Your task to perform on an android device: open chrome and create a bookmark for the current page Image 0: 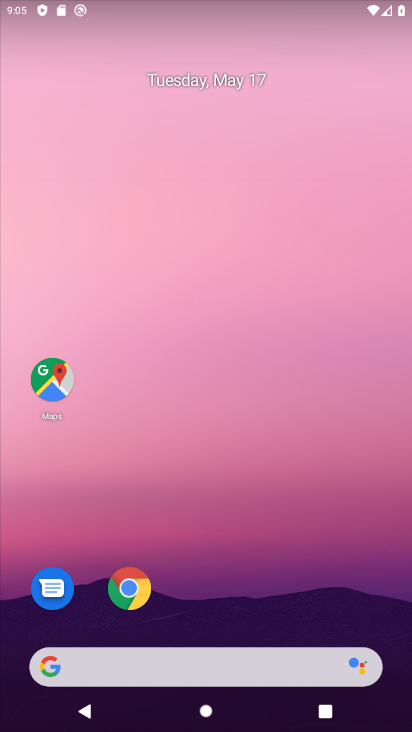
Step 0: drag from (241, 605) to (216, 210)
Your task to perform on an android device: open chrome and create a bookmark for the current page Image 1: 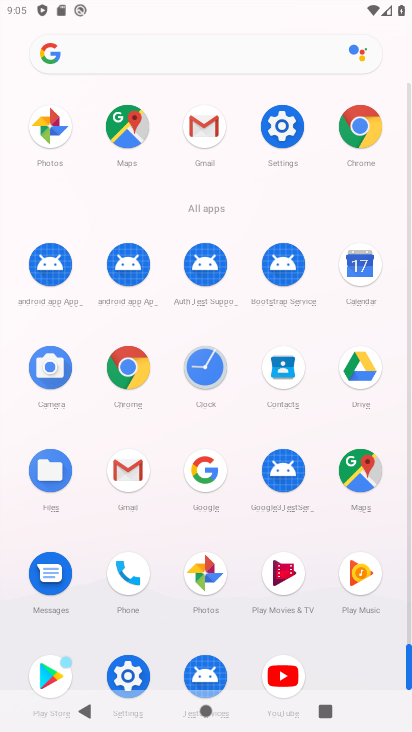
Step 1: click (359, 121)
Your task to perform on an android device: open chrome and create a bookmark for the current page Image 2: 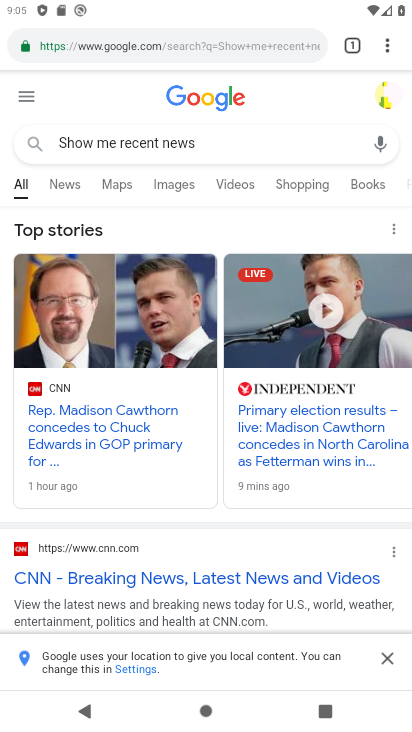
Step 2: click (382, 47)
Your task to perform on an android device: open chrome and create a bookmark for the current page Image 3: 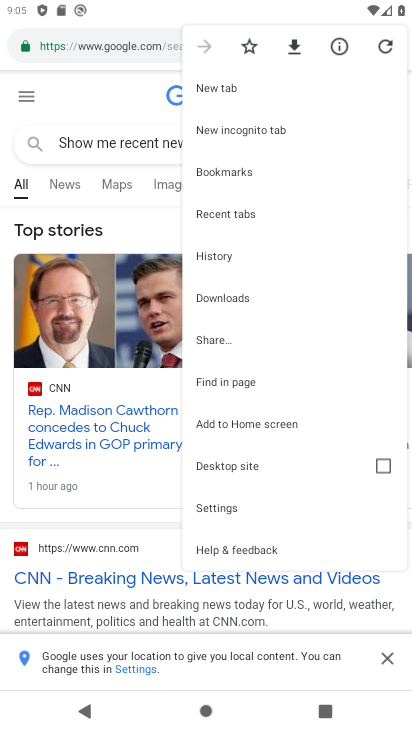
Step 3: click (245, 176)
Your task to perform on an android device: open chrome and create a bookmark for the current page Image 4: 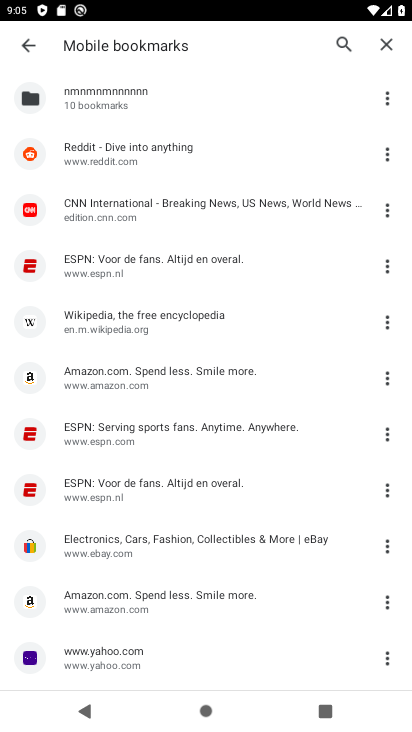
Step 4: click (382, 59)
Your task to perform on an android device: open chrome and create a bookmark for the current page Image 5: 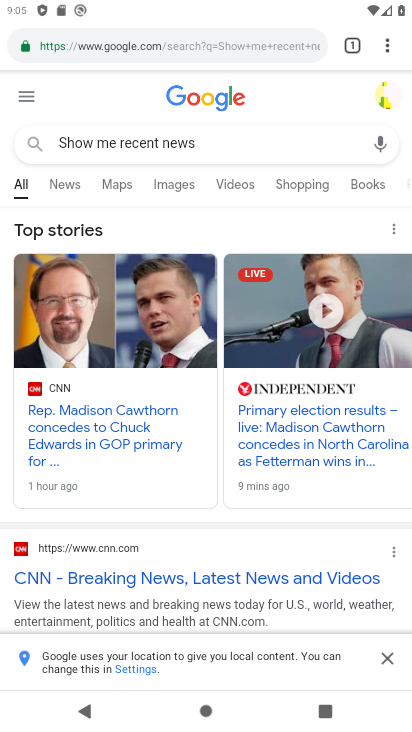
Step 5: click (368, 45)
Your task to perform on an android device: open chrome and create a bookmark for the current page Image 6: 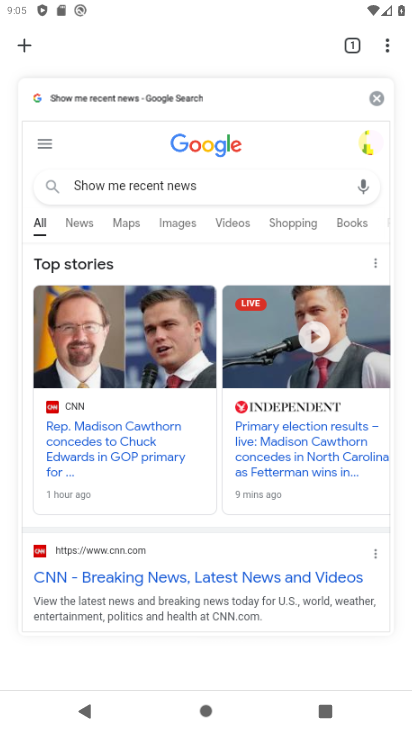
Step 6: click (241, 139)
Your task to perform on an android device: open chrome and create a bookmark for the current page Image 7: 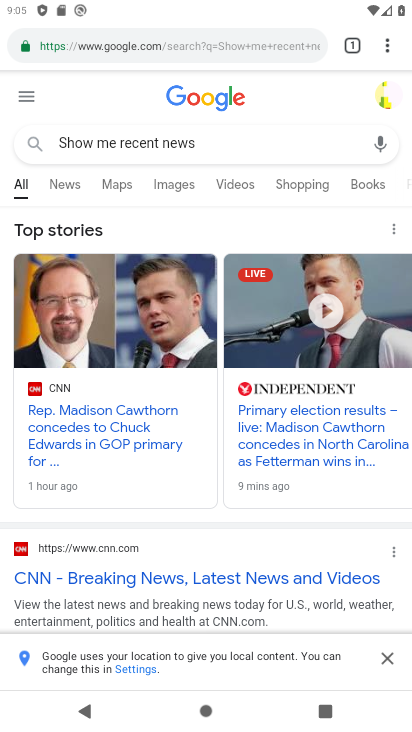
Step 7: click (381, 42)
Your task to perform on an android device: open chrome and create a bookmark for the current page Image 8: 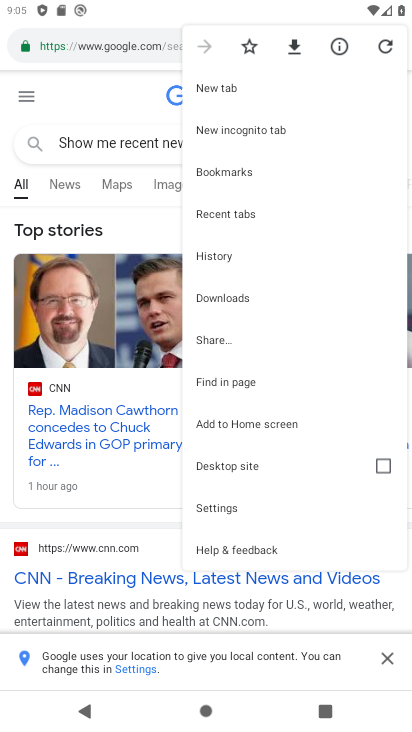
Step 8: click (233, 32)
Your task to perform on an android device: open chrome and create a bookmark for the current page Image 9: 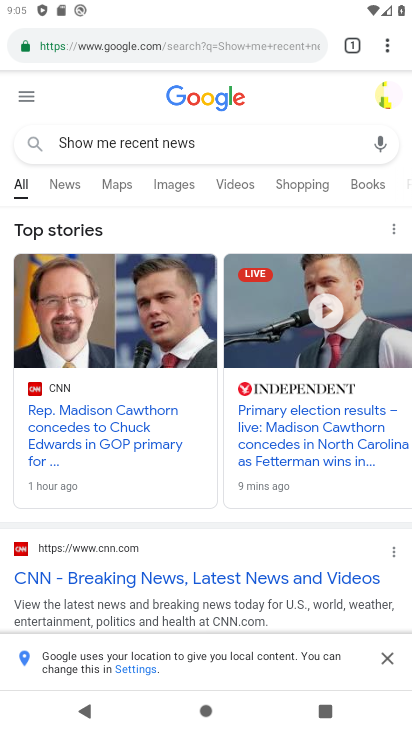
Step 9: click (255, 51)
Your task to perform on an android device: open chrome and create a bookmark for the current page Image 10: 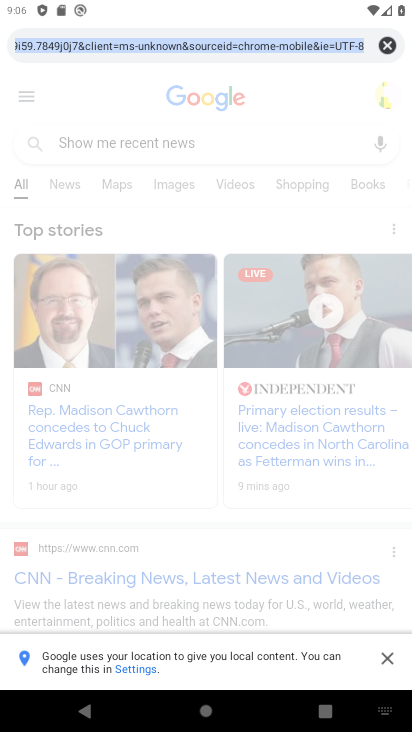
Step 10: task complete